Your task to perform on an android device: uninstall "Contacts" Image 0: 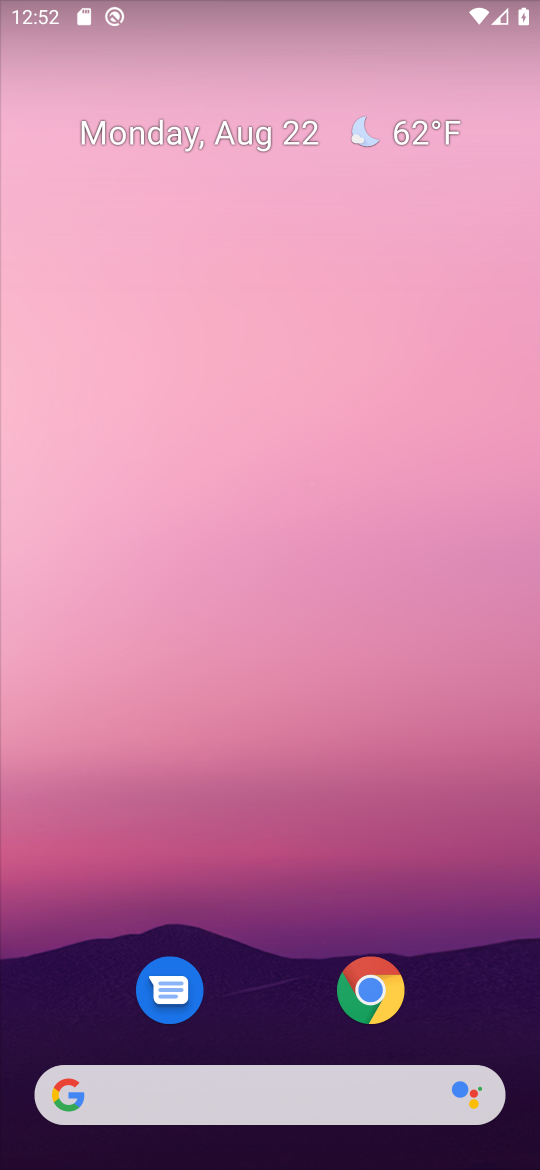
Step 0: drag from (304, 893) to (270, 227)
Your task to perform on an android device: uninstall "Contacts" Image 1: 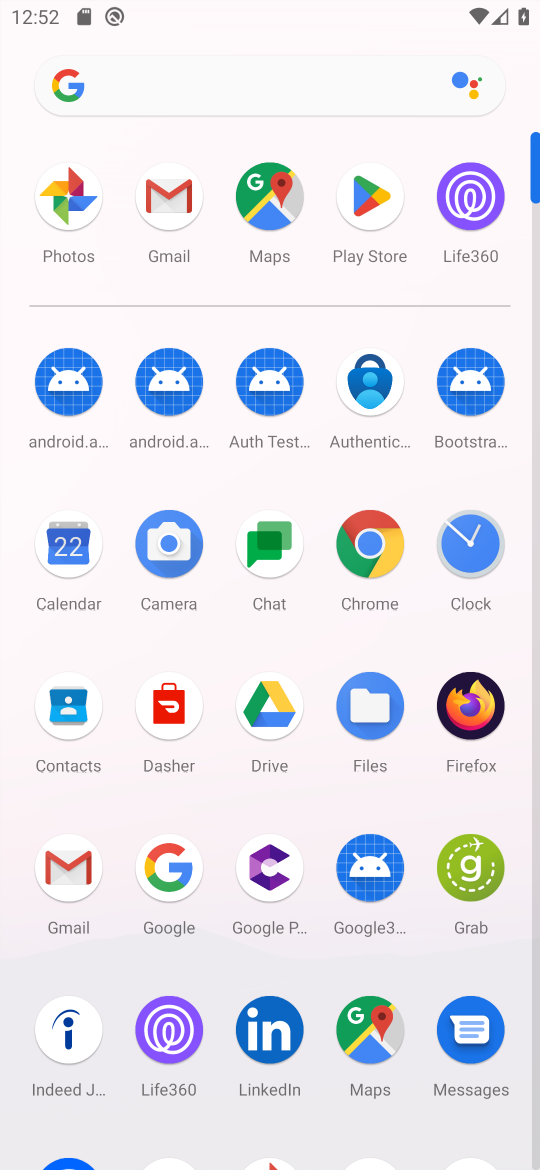
Step 1: click (342, 193)
Your task to perform on an android device: uninstall "Contacts" Image 2: 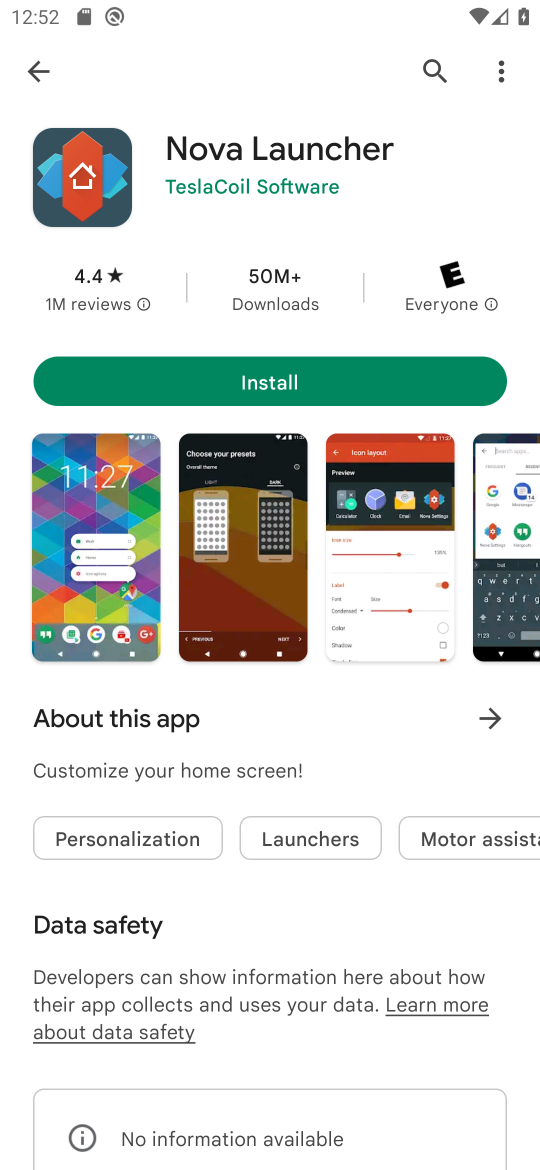
Step 2: click (463, 63)
Your task to perform on an android device: uninstall "Contacts" Image 3: 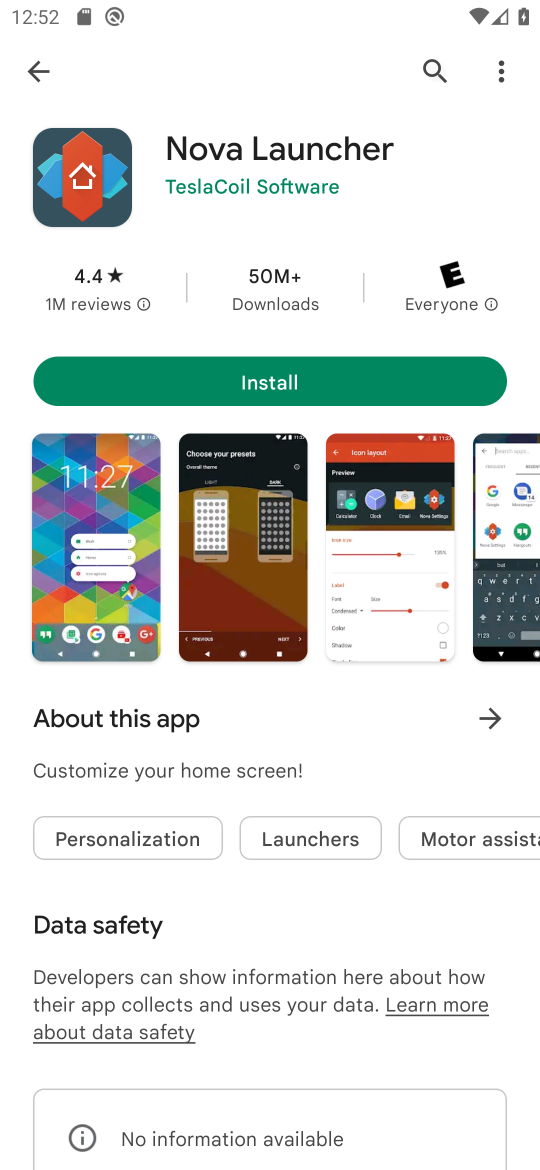
Step 3: click (445, 67)
Your task to perform on an android device: uninstall "Contacts" Image 4: 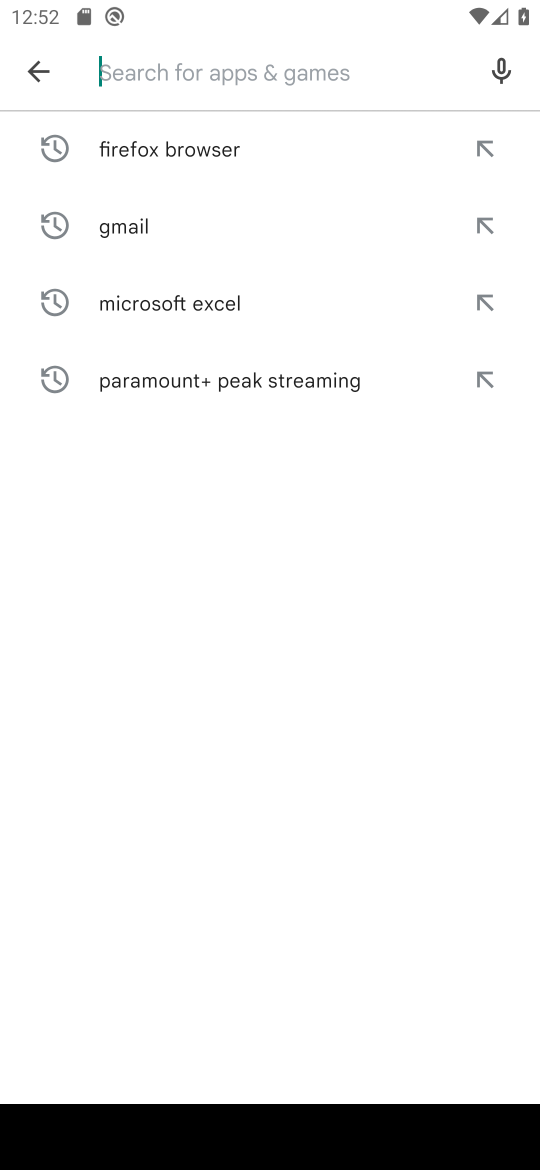
Step 4: type "Contacts"
Your task to perform on an android device: uninstall "Contacts" Image 5: 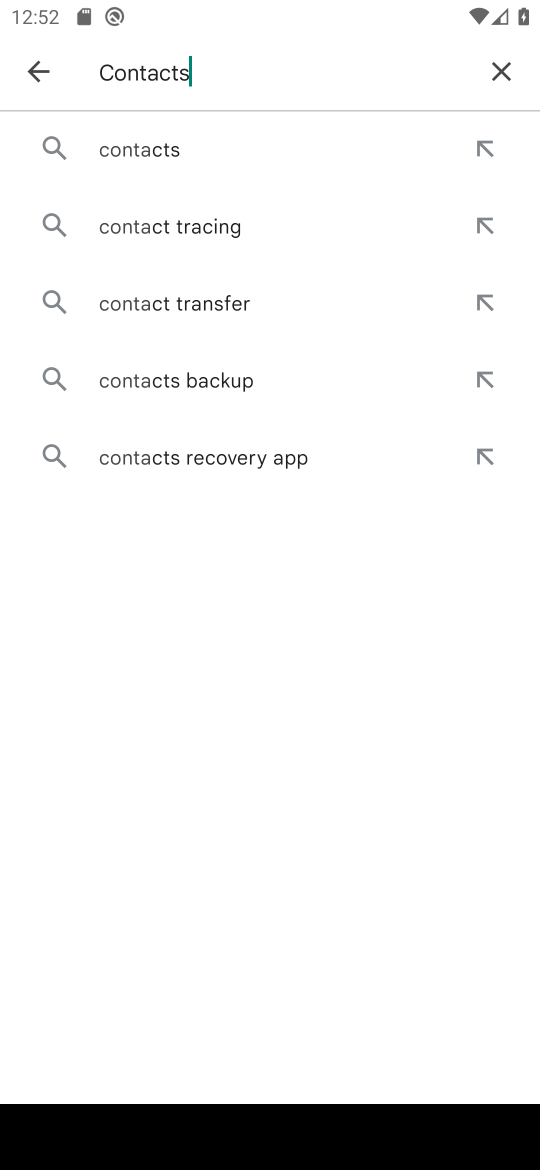
Step 5: type ""
Your task to perform on an android device: uninstall "Contacts" Image 6: 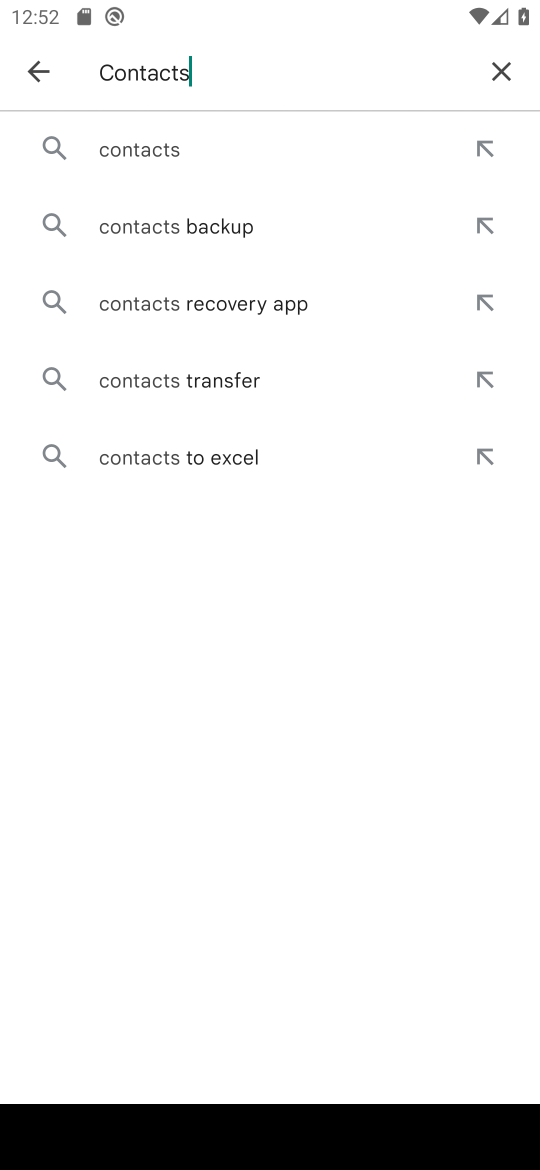
Step 6: click (206, 157)
Your task to perform on an android device: uninstall "Contacts" Image 7: 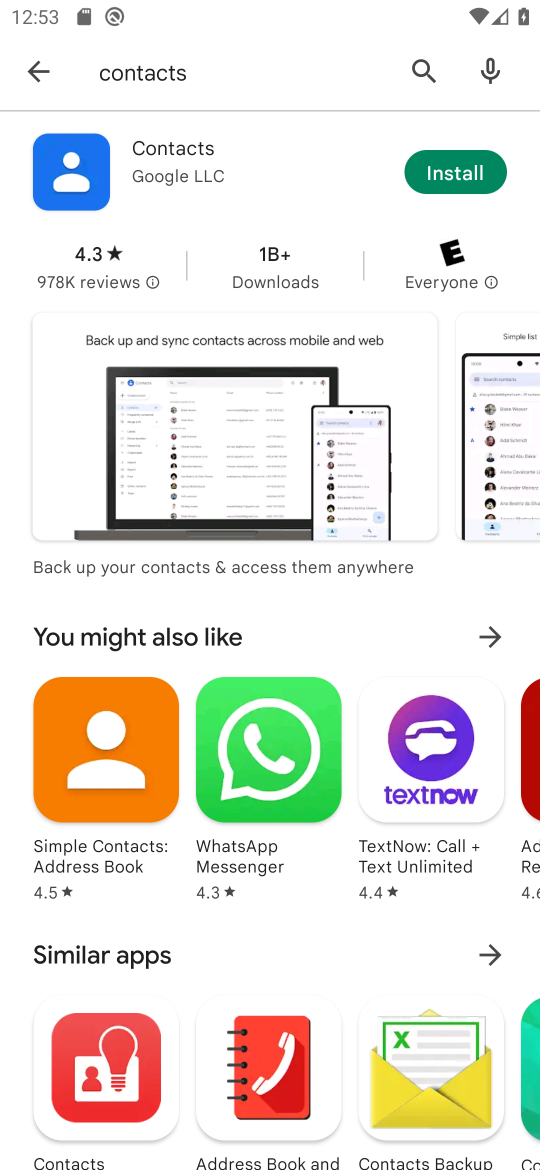
Step 7: task complete